Your task to perform on an android device: Open Wikipedia Image 0: 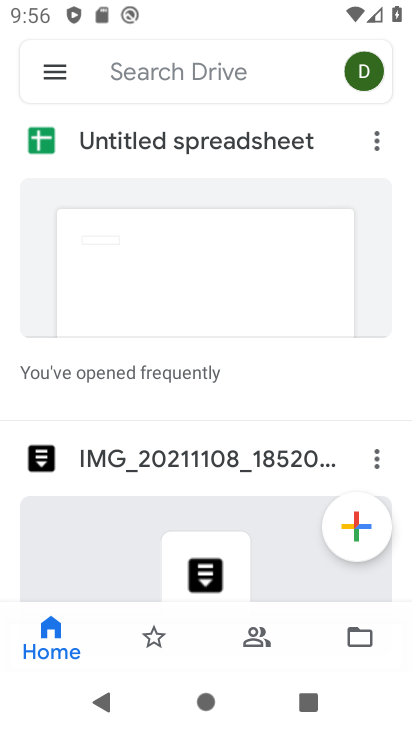
Step 0: press home button
Your task to perform on an android device: Open Wikipedia Image 1: 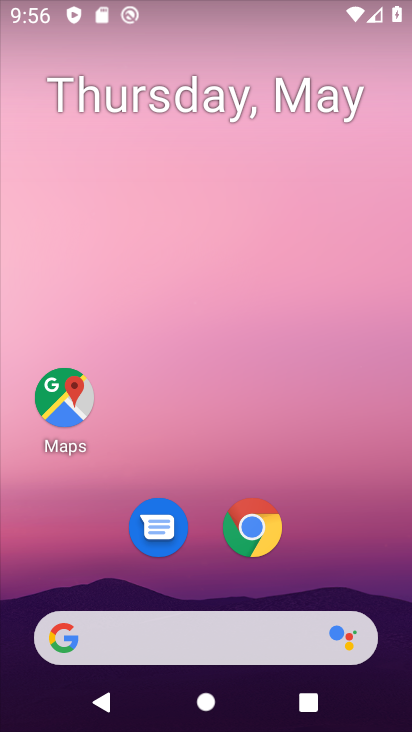
Step 1: click (261, 532)
Your task to perform on an android device: Open Wikipedia Image 2: 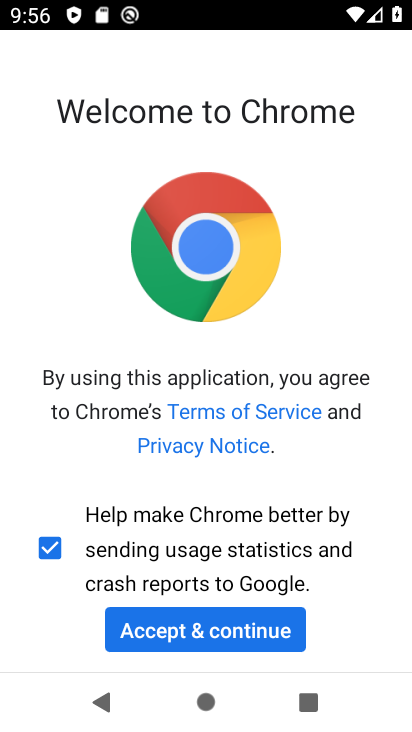
Step 2: click (203, 643)
Your task to perform on an android device: Open Wikipedia Image 3: 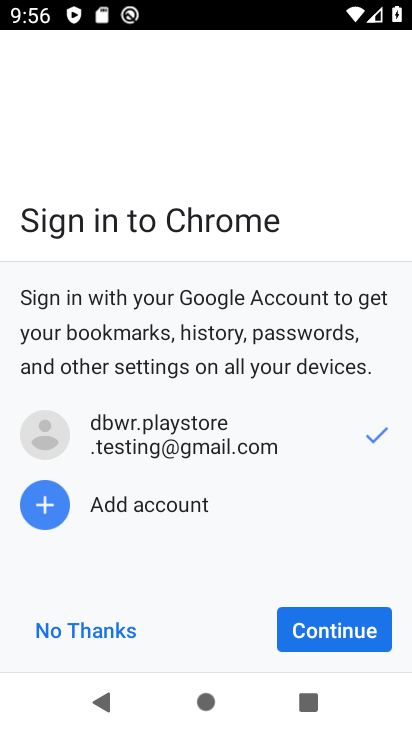
Step 3: click (332, 629)
Your task to perform on an android device: Open Wikipedia Image 4: 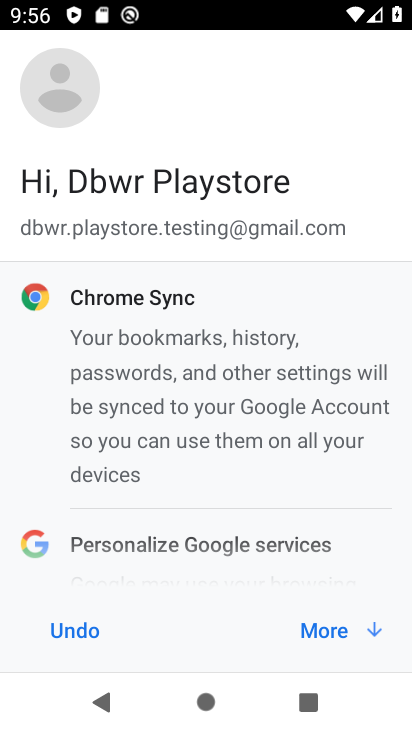
Step 4: click (333, 631)
Your task to perform on an android device: Open Wikipedia Image 5: 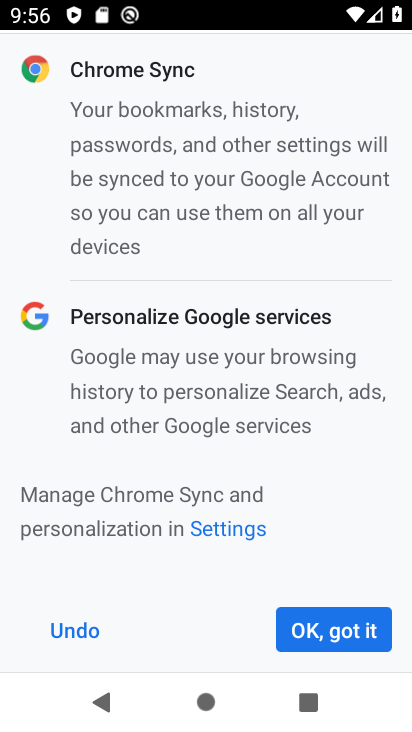
Step 5: click (333, 631)
Your task to perform on an android device: Open Wikipedia Image 6: 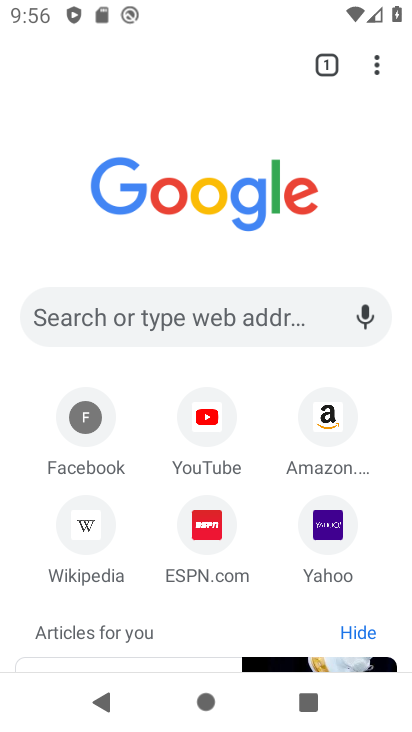
Step 6: click (86, 553)
Your task to perform on an android device: Open Wikipedia Image 7: 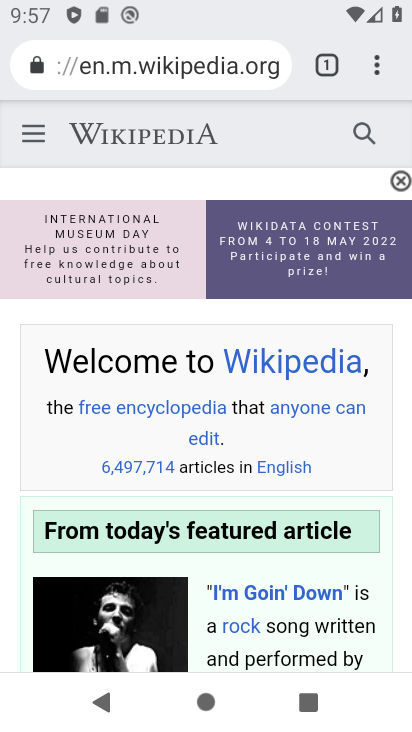
Step 7: task complete